Your task to perform on an android device: open chrome privacy settings Image 0: 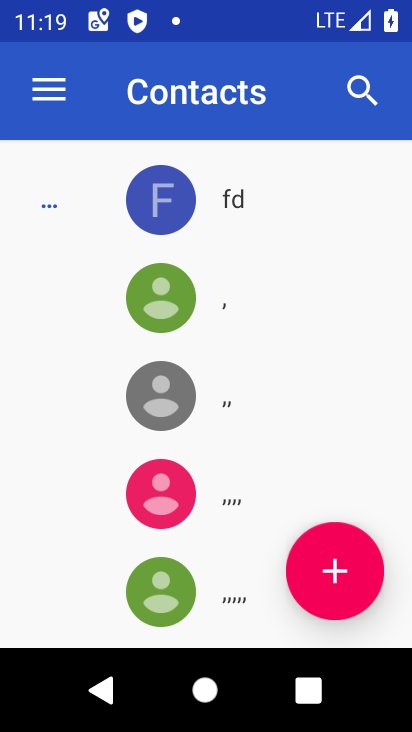
Step 0: press home button
Your task to perform on an android device: open chrome privacy settings Image 1: 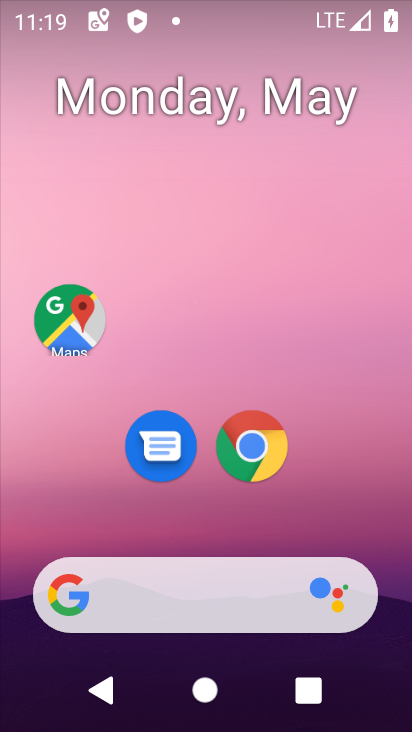
Step 1: drag from (321, 441) to (326, 29)
Your task to perform on an android device: open chrome privacy settings Image 2: 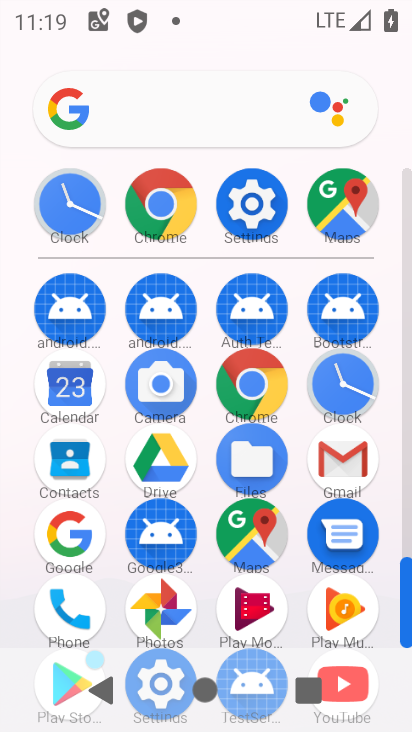
Step 2: click (165, 207)
Your task to perform on an android device: open chrome privacy settings Image 3: 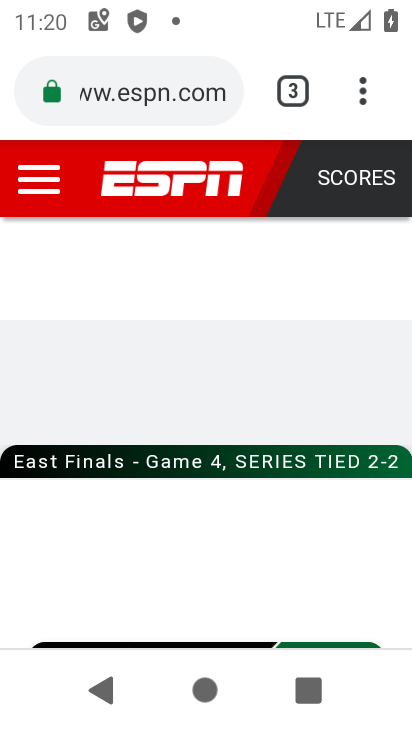
Step 3: drag from (362, 70) to (101, 481)
Your task to perform on an android device: open chrome privacy settings Image 4: 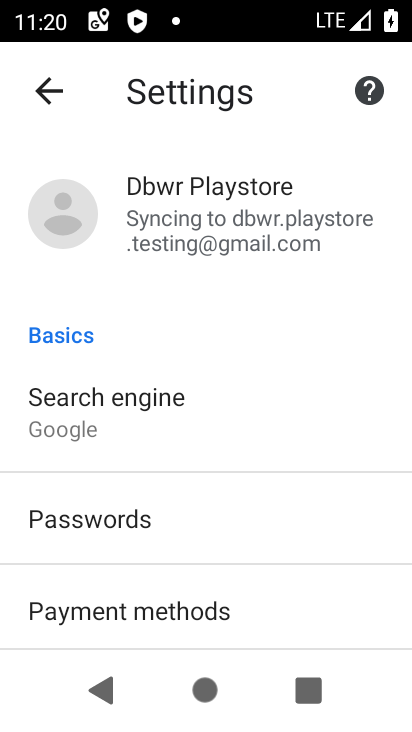
Step 4: drag from (141, 583) to (214, 130)
Your task to perform on an android device: open chrome privacy settings Image 5: 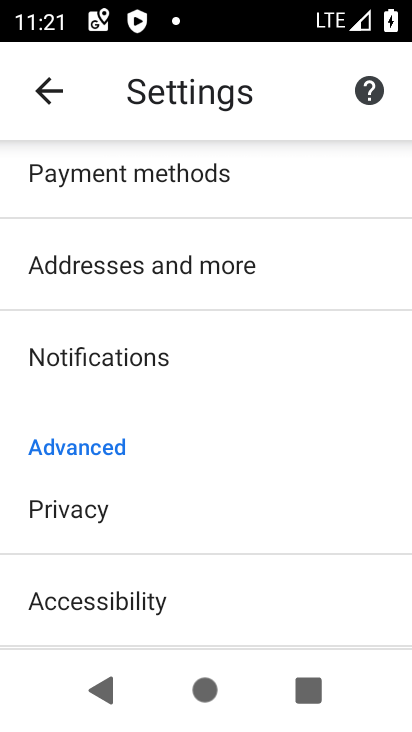
Step 5: drag from (156, 614) to (193, 293)
Your task to perform on an android device: open chrome privacy settings Image 6: 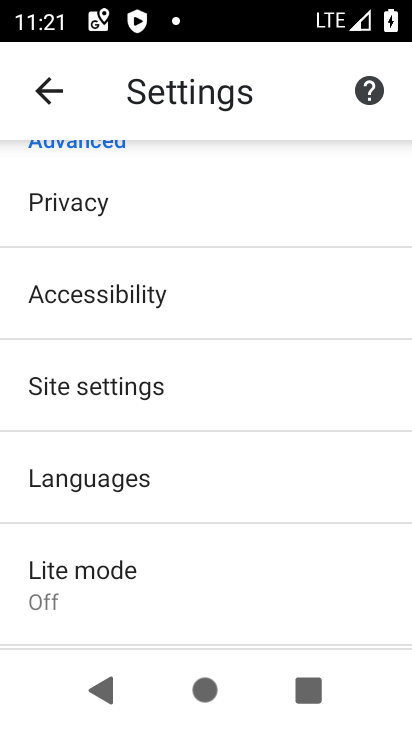
Step 6: click (104, 212)
Your task to perform on an android device: open chrome privacy settings Image 7: 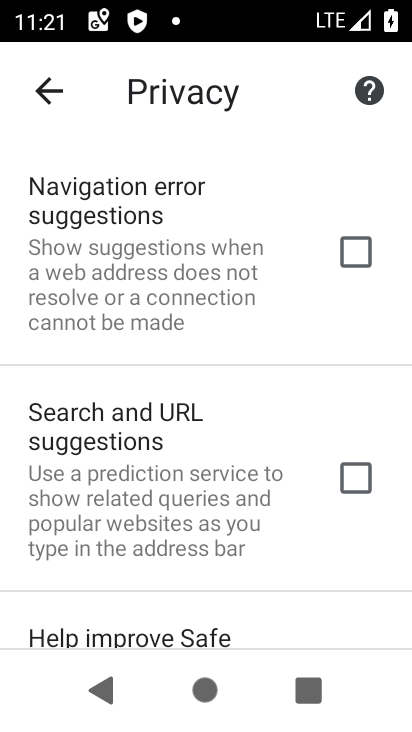
Step 7: task complete